Your task to perform on an android device: Play the last video I watched on Youtube Image 0: 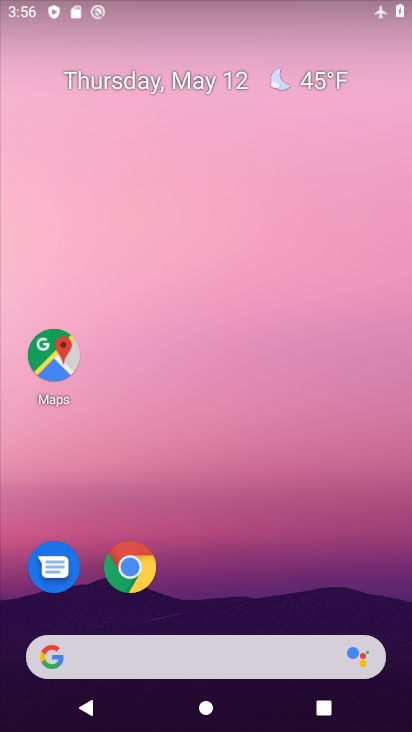
Step 0: drag from (223, 592) to (250, 208)
Your task to perform on an android device: Play the last video I watched on Youtube Image 1: 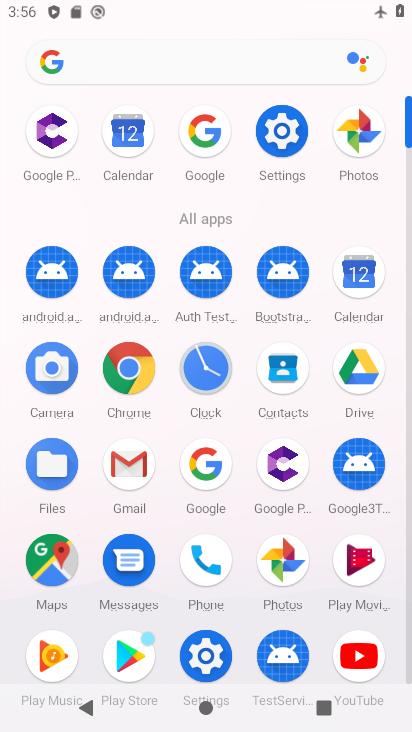
Step 1: click (352, 632)
Your task to perform on an android device: Play the last video I watched on Youtube Image 2: 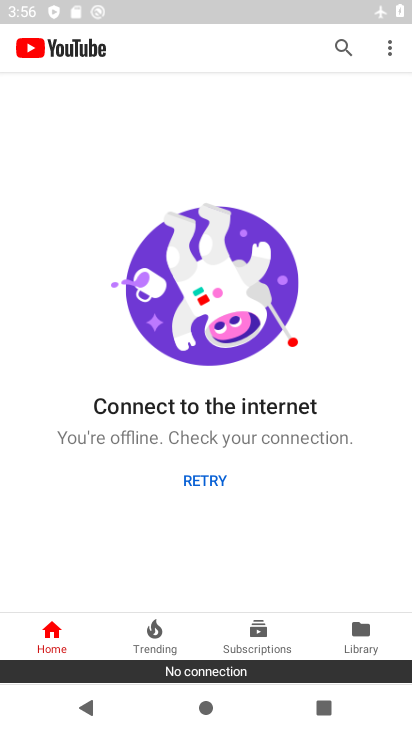
Step 2: click (361, 628)
Your task to perform on an android device: Play the last video I watched on Youtube Image 3: 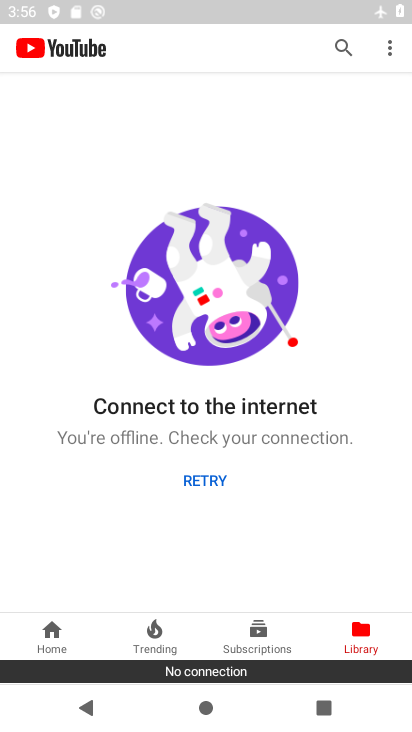
Step 3: task complete